Your task to perform on an android device: Turn off the flashlight Image 0: 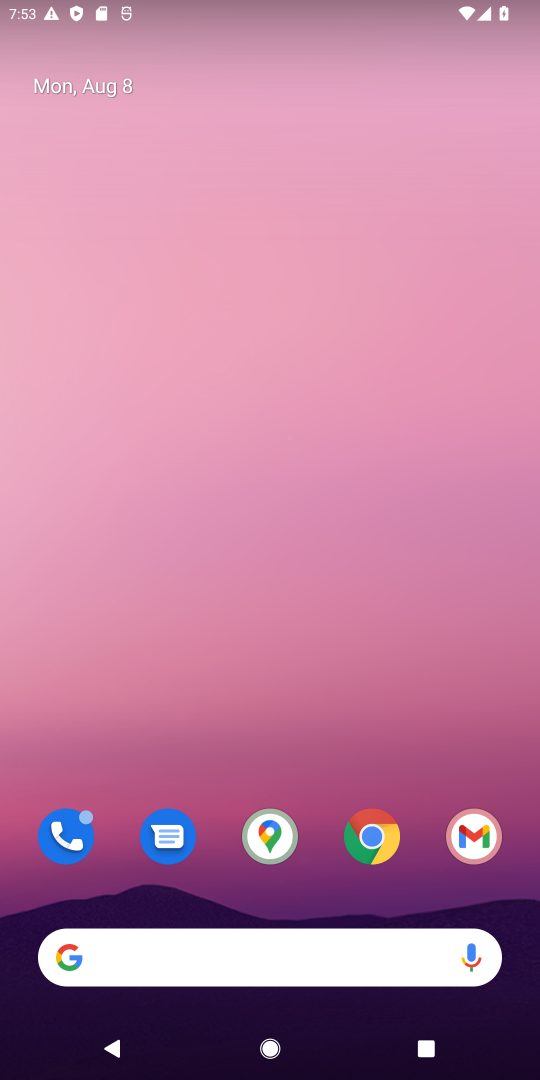
Step 0: drag from (268, 11) to (399, 1002)
Your task to perform on an android device: Turn off the flashlight Image 1: 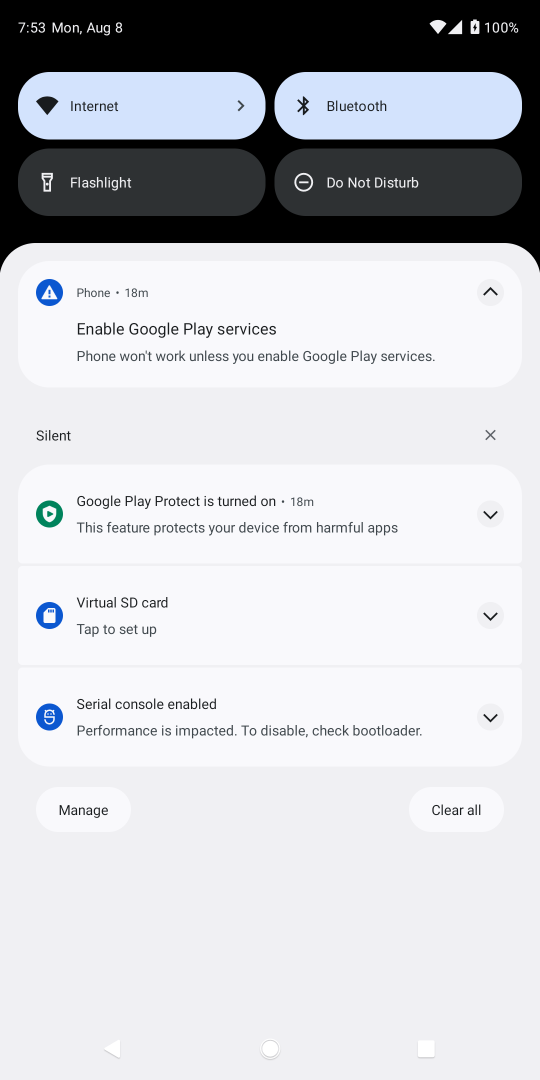
Step 1: click (178, 162)
Your task to perform on an android device: Turn off the flashlight Image 2: 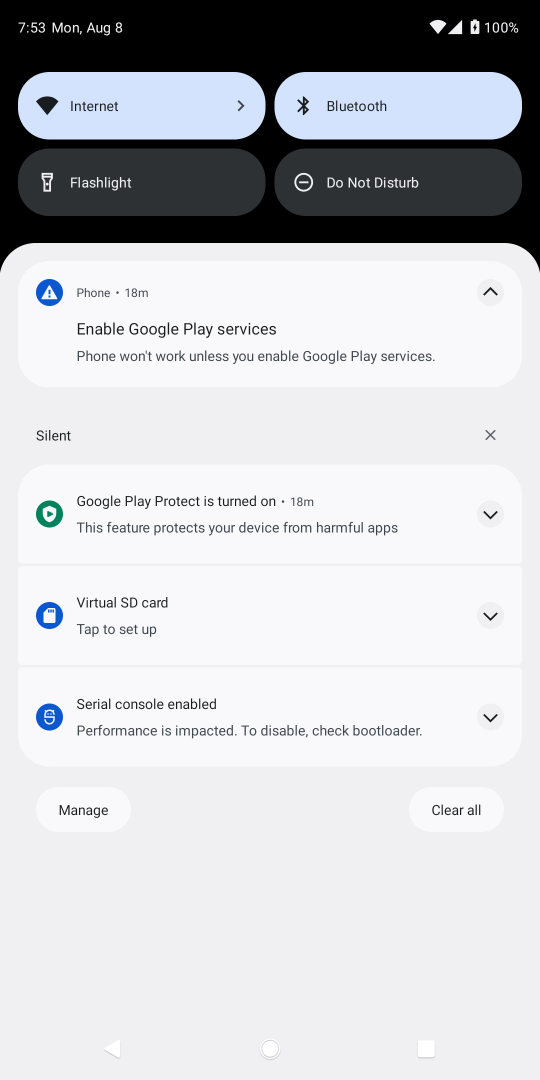
Step 2: click (211, 193)
Your task to perform on an android device: Turn off the flashlight Image 3: 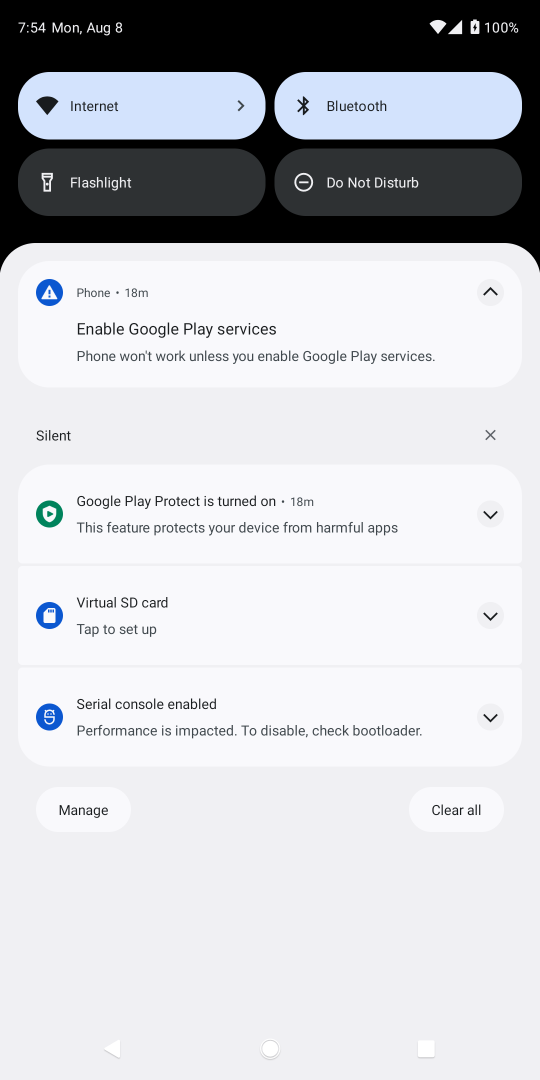
Step 3: task complete